Your task to perform on an android device: Show me popular videos on Youtube Image 0: 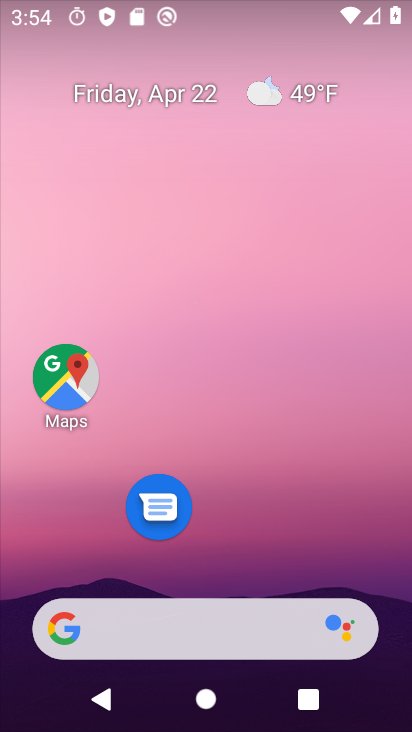
Step 0: drag from (207, 445) to (282, 37)
Your task to perform on an android device: Show me popular videos on Youtube Image 1: 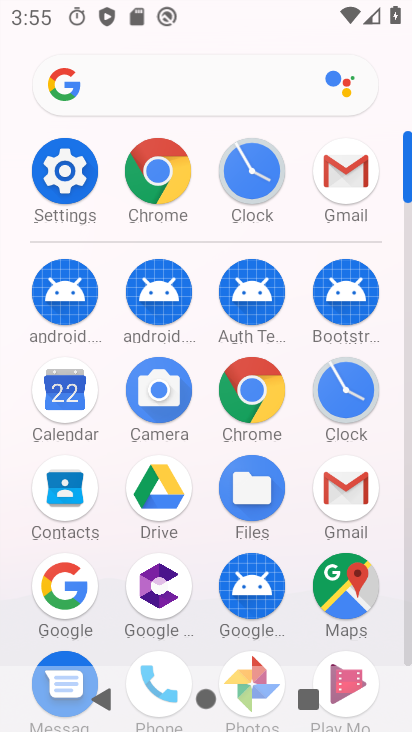
Step 1: drag from (170, 529) to (247, 57)
Your task to perform on an android device: Show me popular videos on Youtube Image 2: 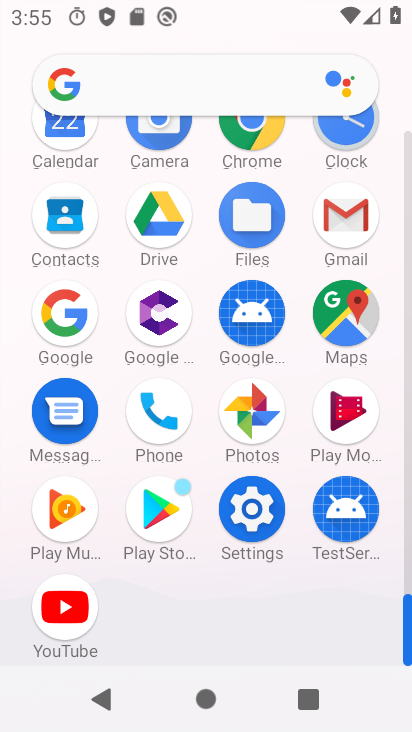
Step 2: click (70, 606)
Your task to perform on an android device: Show me popular videos on Youtube Image 3: 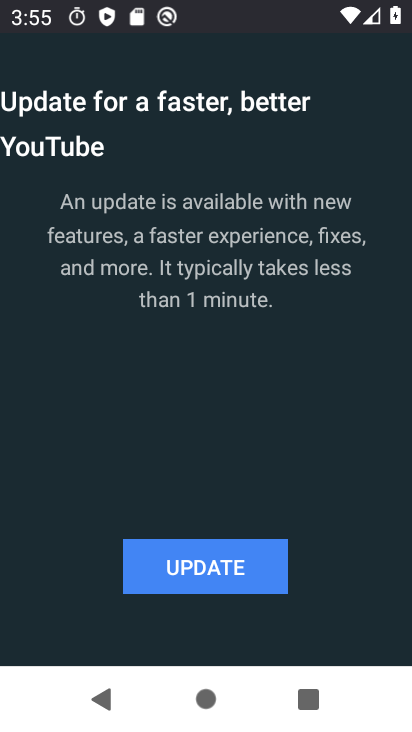
Step 3: click (164, 571)
Your task to perform on an android device: Show me popular videos on Youtube Image 4: 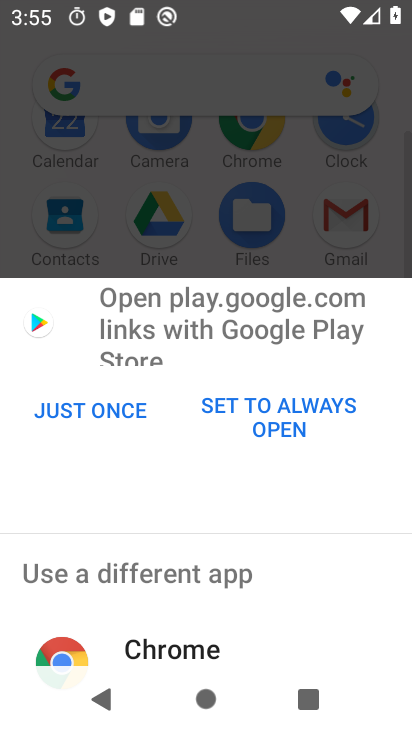
Step 4: press home button
Your task to perform on an android device: Show me popular videos on Youtube Image 5: 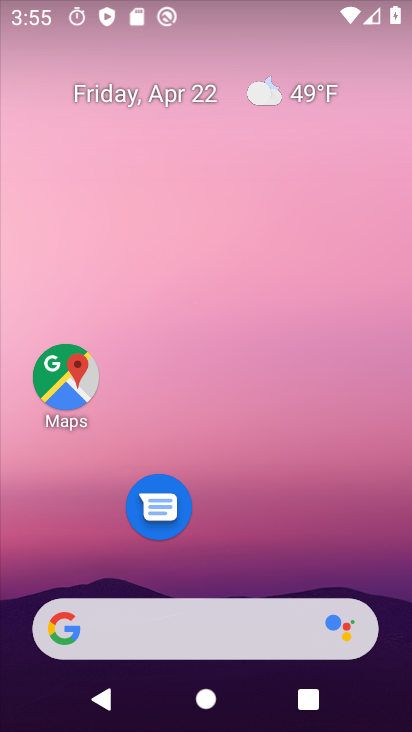
Step 5: drag from (247, 539) to (358, 72)
Your task to perform on an android device: Show me popular videos on Youtube Image 6: 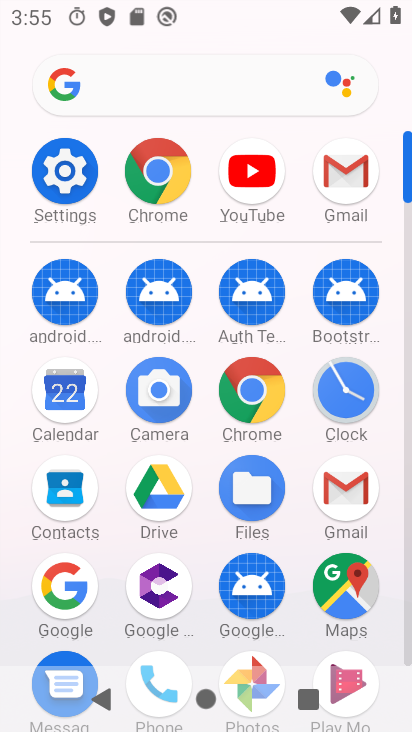
Step 6: click (258, 160)
Your task to perform on an android device: Show me popular videos on Youtube Image 7: 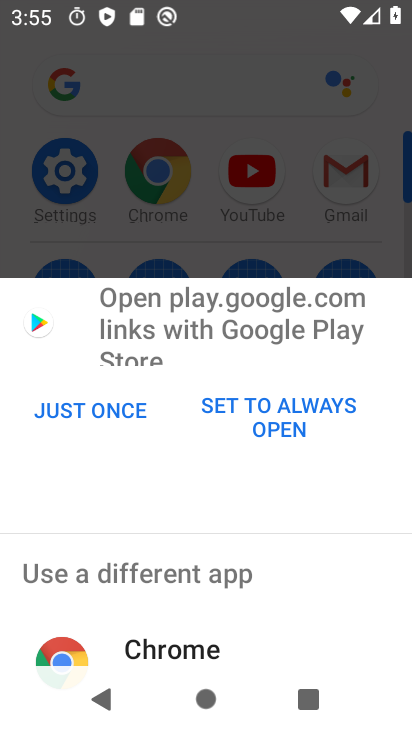
Step 7: click (259, 241)
Your task to perform on an android device: Show me popular videos on Youtube Image 8: 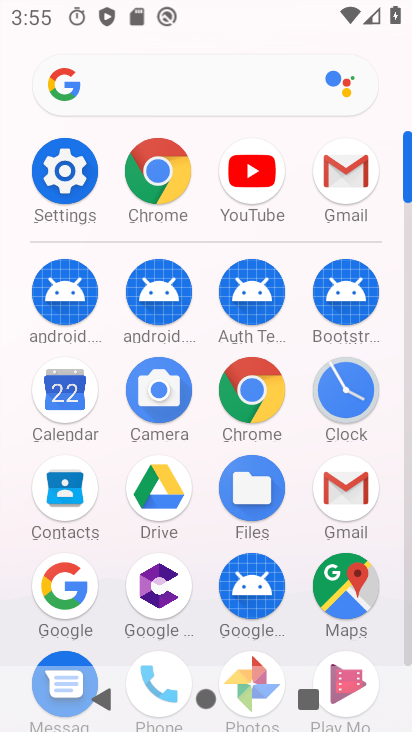
Step 8: click (253, 192)
Your task to perform on an android device: Show me popular videos on Youtube Image 9: 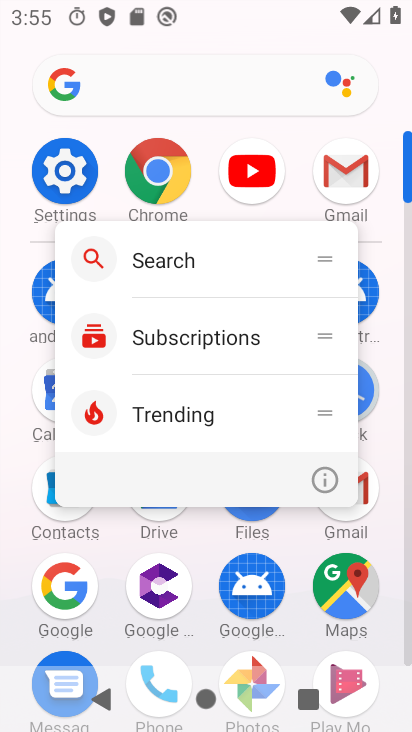
Step 9: click (252, 167)
Your task to perform on an android device: Show me popular videos on Youtube Image 10: 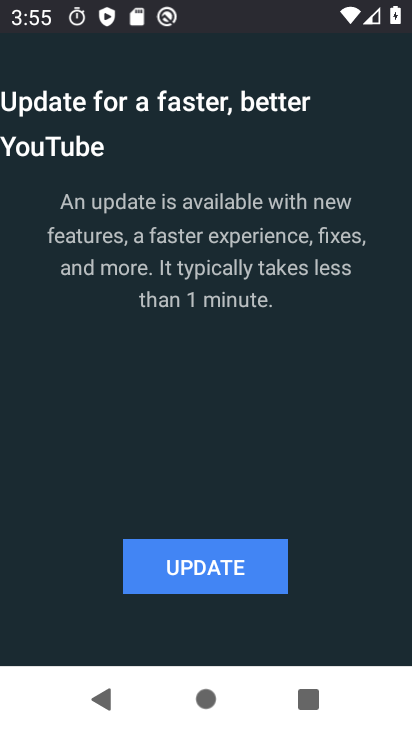
Step 10: click (217, 573)
Your task to perform on an android device: Show me popular videos on Youtube Image 11: 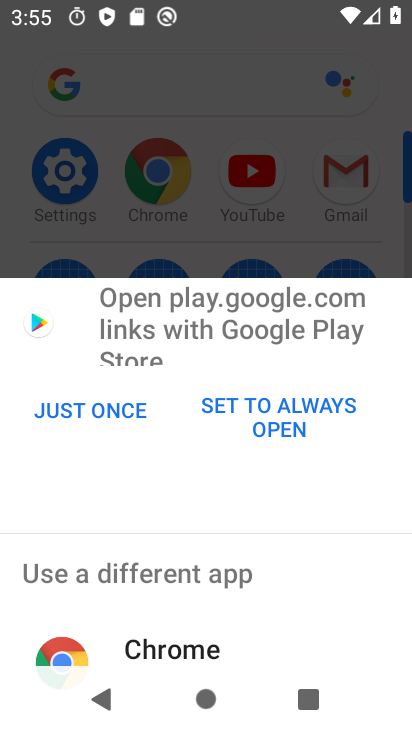
Step 11: click (129, 408)
Your task to perform on an android device: Show me popular videos on Youtube Image 12: 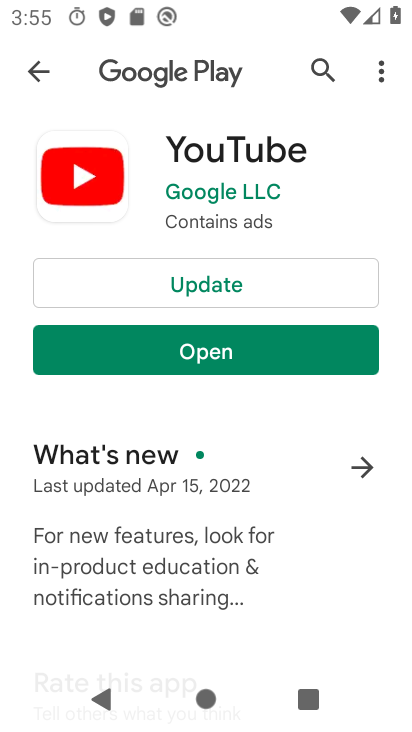
Step 12: click (203, 278)
Your task to perform on an android device: Show me popular videos on Youtube Image 13: 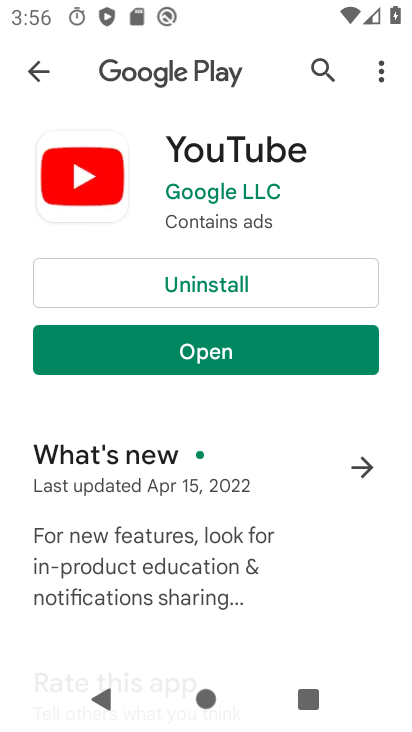
Step 13: click (193, 345)
Your task to perform on an android device: Show me popular videos on Youtube Image 14: 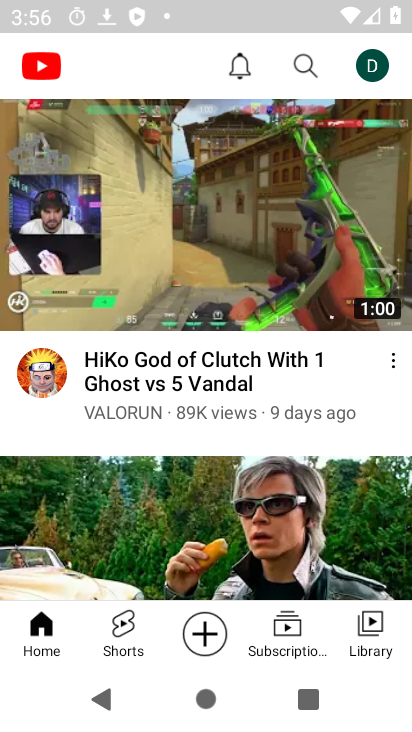
Step 14: click (103, 129)
Your task to perform on an android device: Show me popular videos on Youtube Image 15: 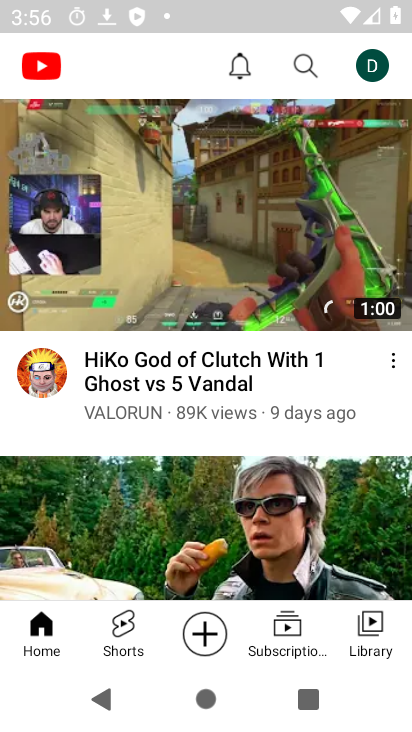
Step 15: drag from (76, 287) to (39, 619)
Your task to perform on an android device: Show me popular videos on Youtube Image 16: 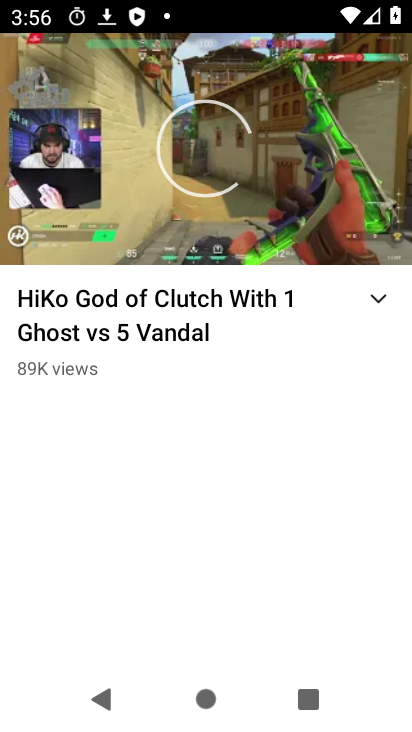
Step 16: drag from (85, 127) to (101, 643)
Your task to perform on an android device: Show me popular videos on Youtube Image 17: 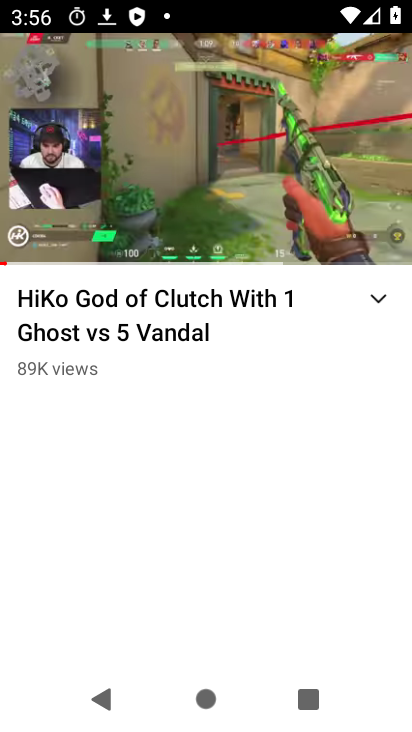
Step 17: drag from (152, 185) to (152, 603)
Your task to perform on an android device: Show me popular videos on Youtube Image 18: 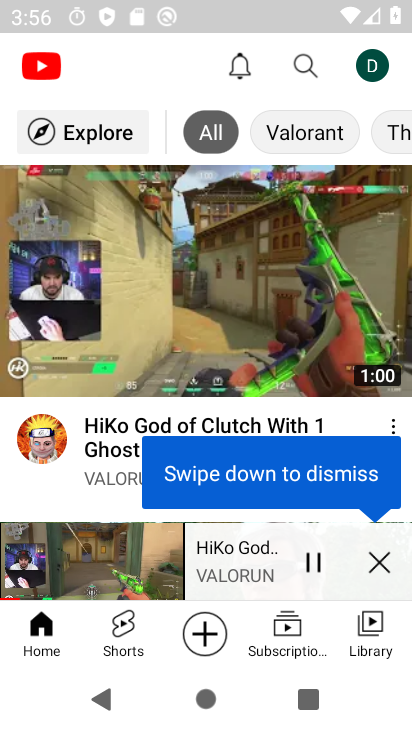
Step 18: click (92, 142)
Your task to perform on an android device: Show me popular videos on Youtube Image 19: 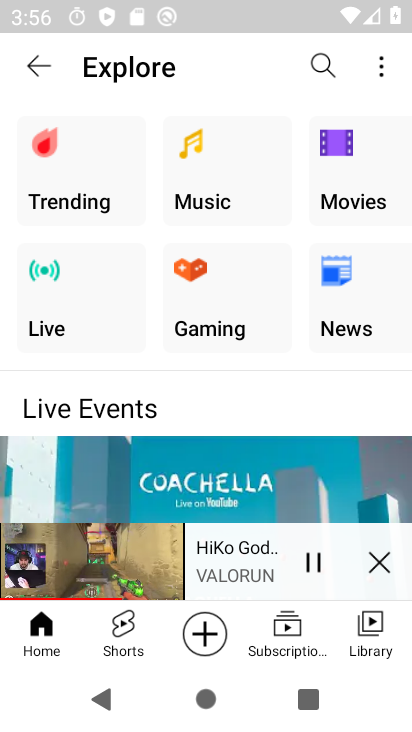
Step 19: click (58, 159)
Your task to perform on an android device: Show me popular videos on Youtube Image 20: 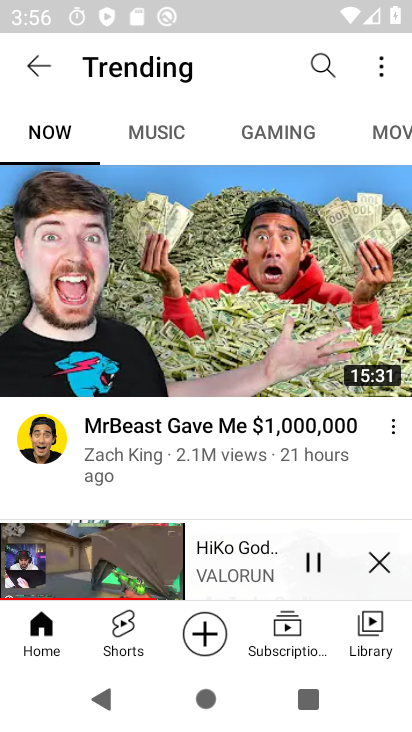
Step 20: task complete